Your task to perform on an android device: Show me productivity apps on the Play Store Image 0: 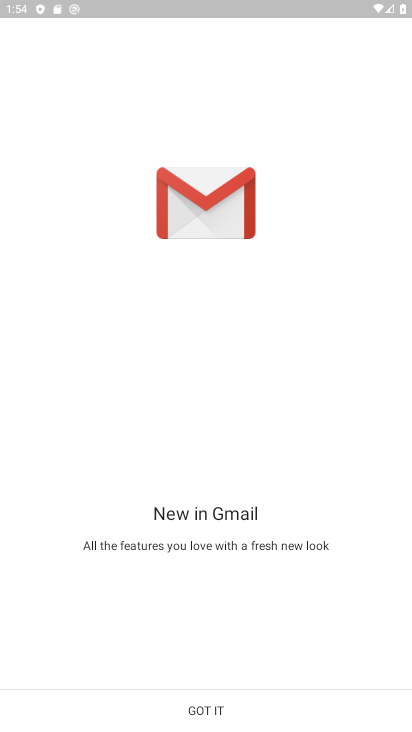
Step 0: press home button
Your task to perform on an android device: Show me productivity apps on the Play Store Image 1: 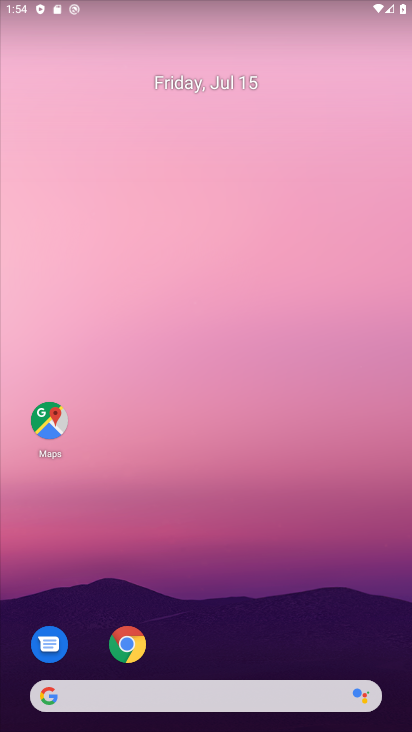
Step 1: drag from (233, 649) to (197, 223)
Your task to perform on an android device: Show me productivity apps on the Play Store Image 2: 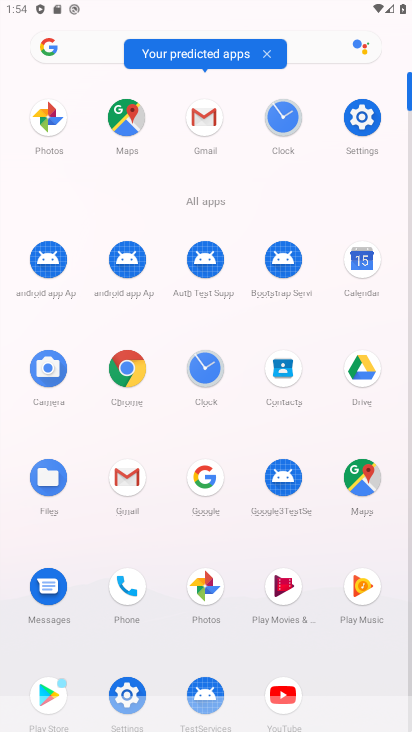
Step 2: click (50, 688)
Your task to perform on an android device: Show me productivity apps on the Play Store Image 3: 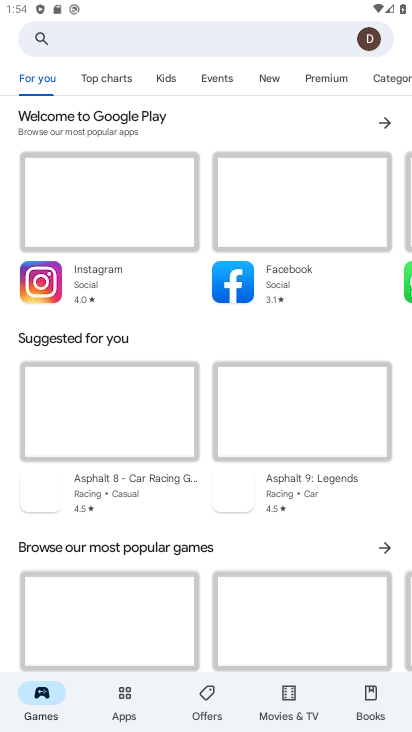
Step 3: click (126, 704)
Your task to perform on an android device: Show me productivity apps on the Play Store Image 4: 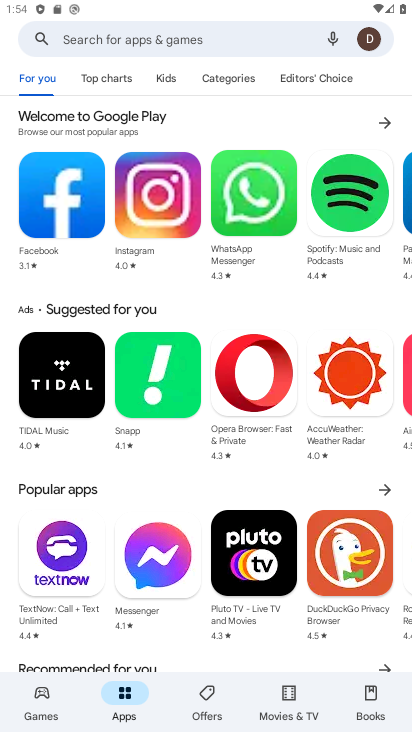
Step 4: click (238, 83)
Your task to perform on an android device: Show me productivity apps on the Play Store Image 5: 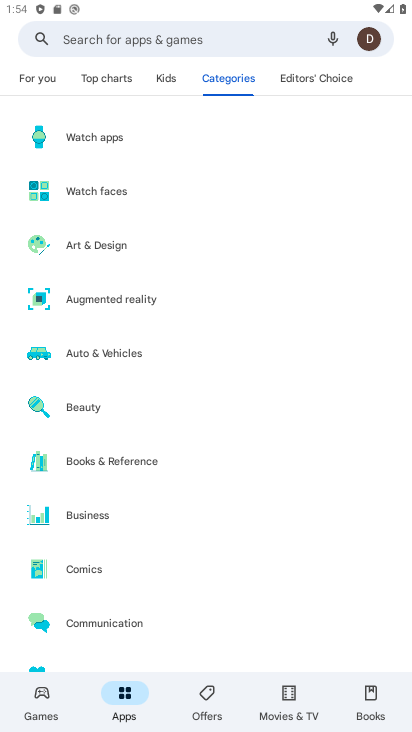
Step 5: drag from (151, 645) to (122, 174)
Your task to perform on an android device: Show me productivity apps on the Play Store Image 6: 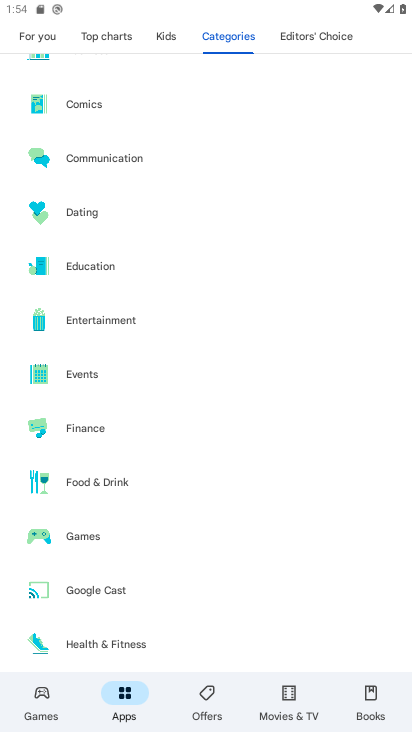
Step 6: drag from (169, 618) to (115, 188)
Your task to perform on an android device: Show me productivity apps on the Play Store Image 7: 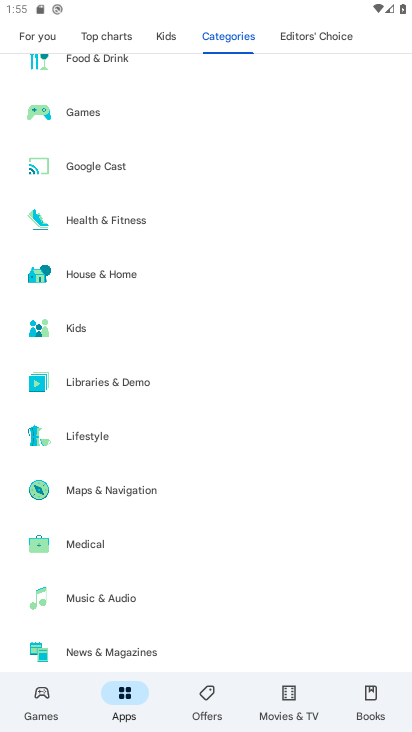
Step 7: drag from (158, 614) to (131, 168)
Your task to perform on an android device: Show me productivity apps on the Play Store Image 8: 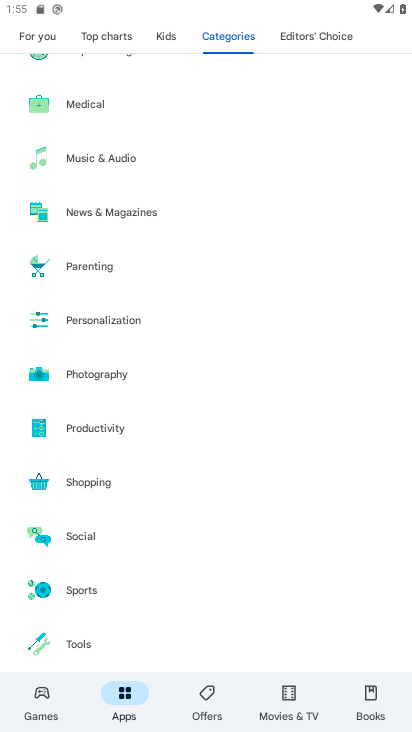
Step 8: click (139, 427)
Your task to perform on an android device: Show me productivity apps on the Play Store Image 9: 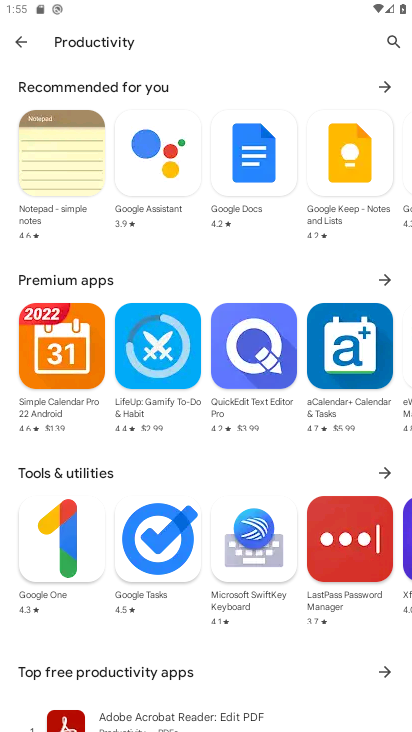
Step 9: task complete